Your task to perform on an android device: remove spam from my inbox in the gmail app Image 0: 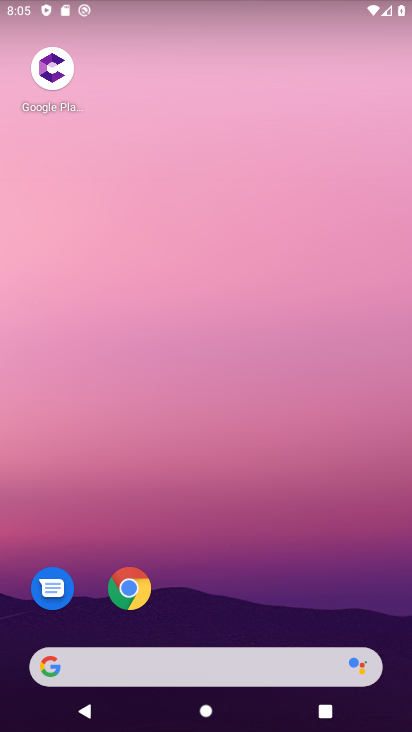
Step 0: drag from (223, 627) to (207, 28)
Your task to perform on an android device: remove spam from my inbox in the gmail app Image 1: 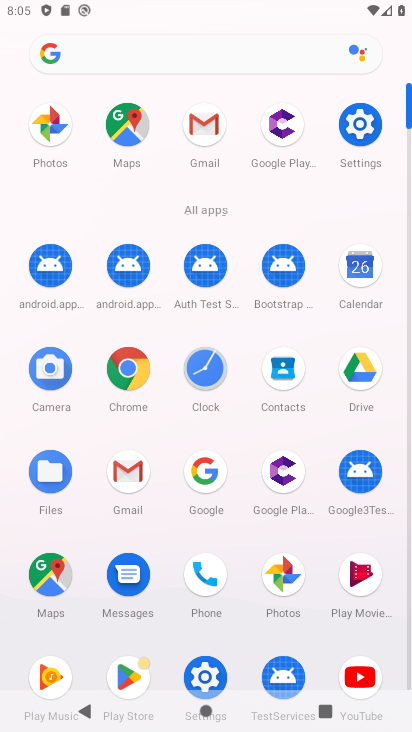
Step 1: click (202, 117)
Your task to perform on an android device: remove spam from my inbox in the gmail app Image 2: 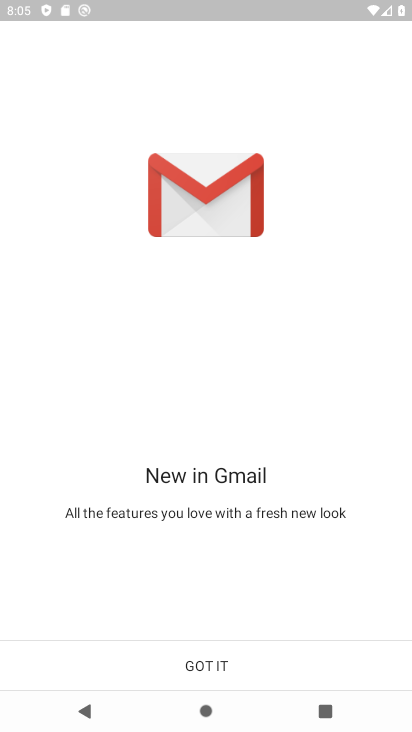
Step 2: click (209, 670)
Your task to perform on an android device: remove spam from my inbox in the gmail app Image 3: 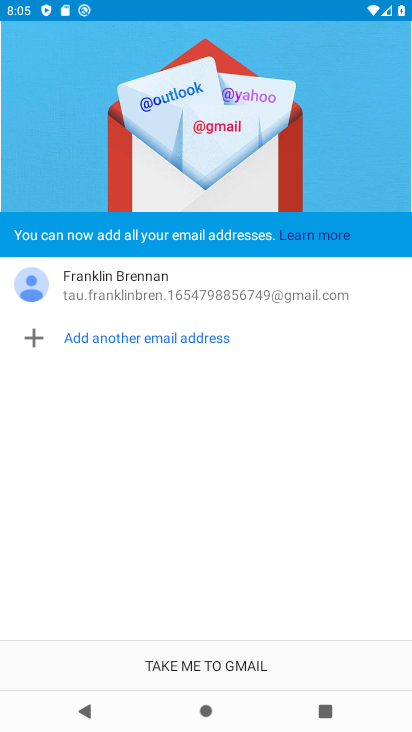
Step 3: click (182, 660)
Your task to perform on an android device: remove spam from my inbox in the gmail app Image 4: 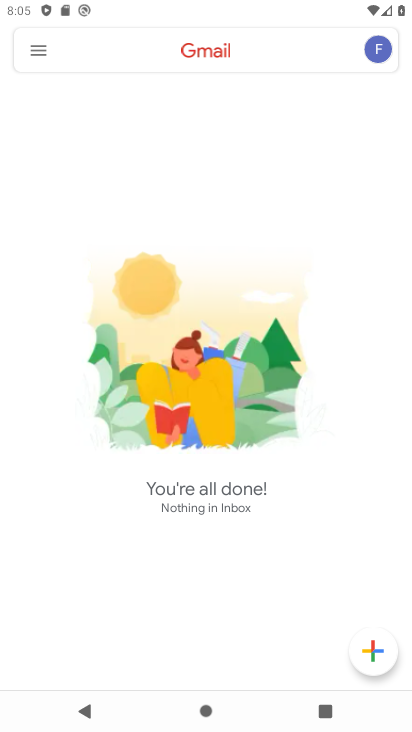
Step 4: click (38, 49)
Your task to perform on an android device: remove spam from my inbox in the gmail app Image 5: 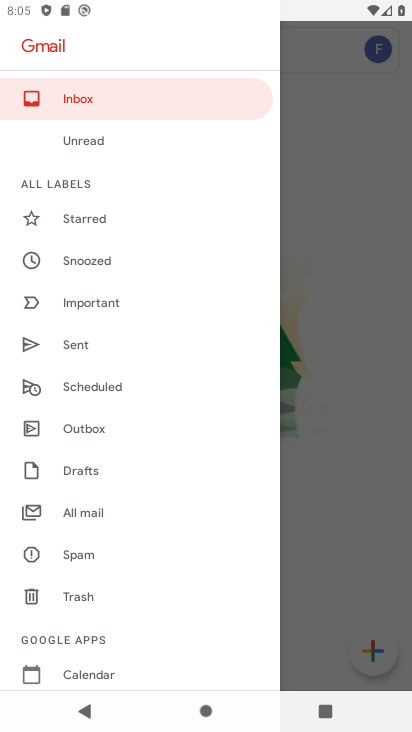
Step 5: click (83, 556)
Your task to perform on an android device: remove spam from my inbox in the gmail app Image 6: 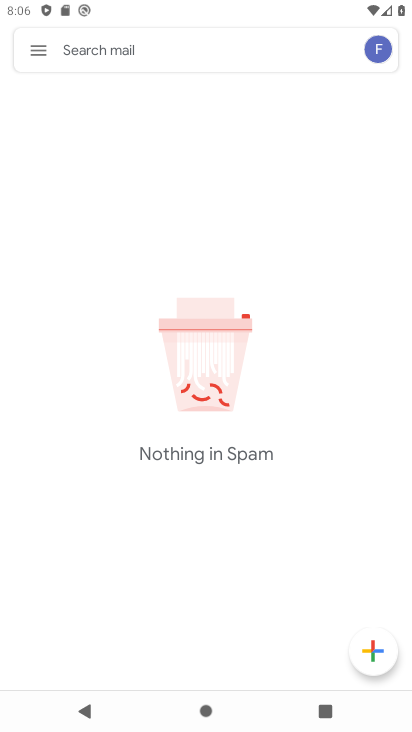
Step 6: task complete